Your task to perform on an android device: Open Google Chrome Image 0: 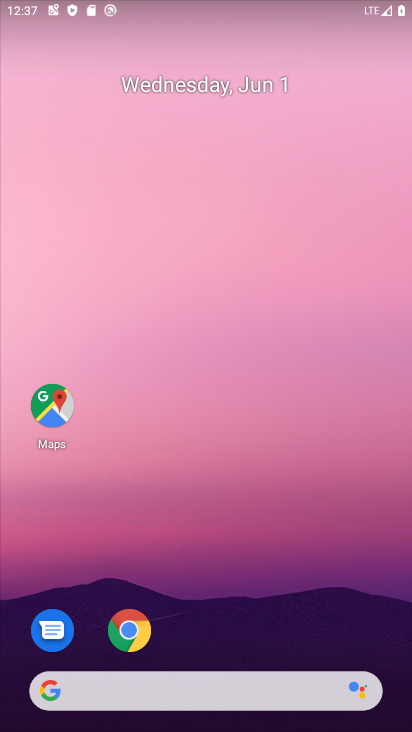
Step 0: click (123, 627)
Your task to perform on an android device: Open Google Chrome Image 1: 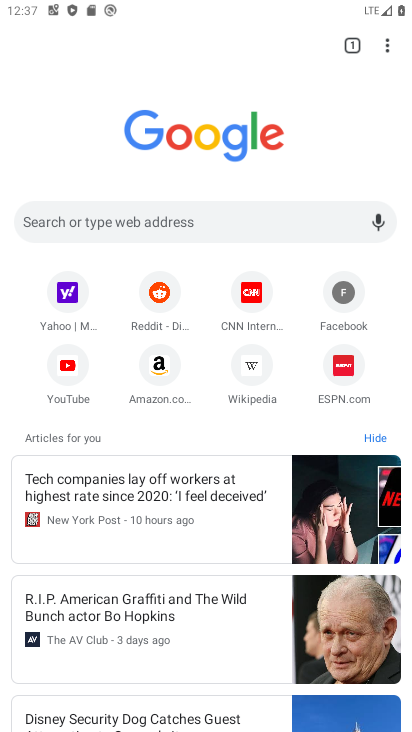
Step 1: task complete